Your task to perform on an android device: check data usage Image 0: 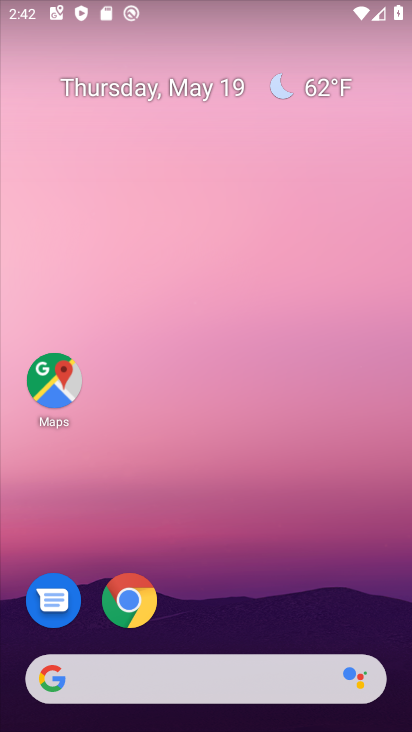
Step 0: drag from (50, 581) to (361, 211)
Your task to perform on an android device: check data usage Image 1: 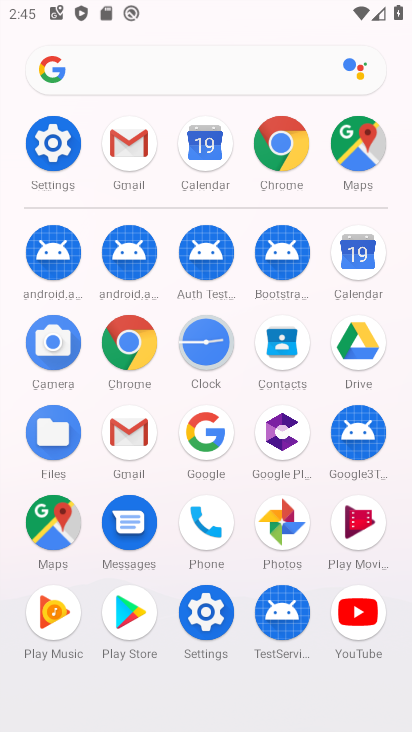
Step 1: click (45, 143)
Your task to perform on an android device: check data usage Image 2: 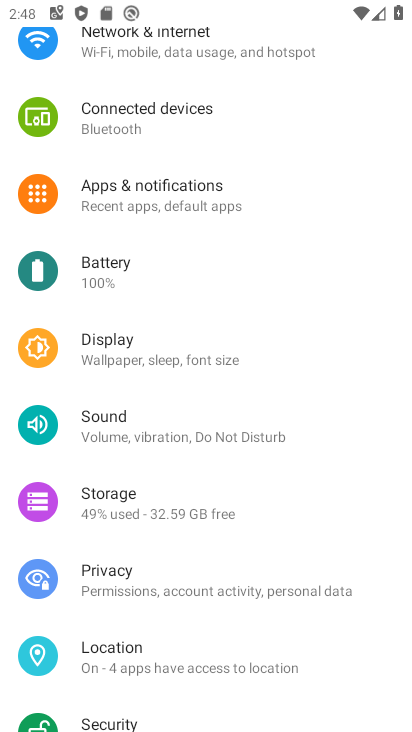
Step 2: drag from (224, 88) to (225, 375)
Your task to perform on an android device: check data usage Image 3: 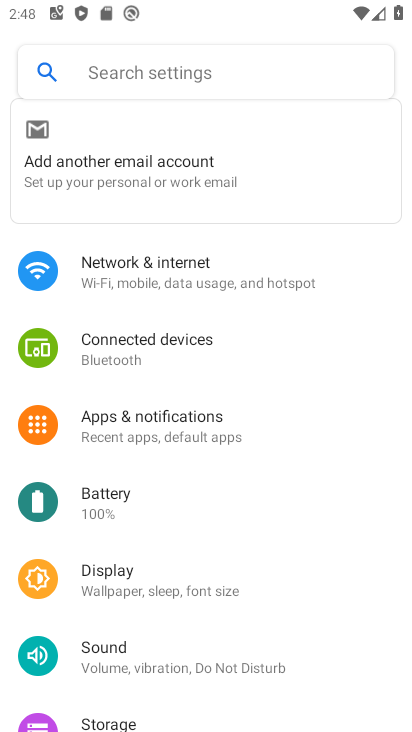
Step 3: click (166, 276)
Your task to perform on an android device: check data usage Image 4: 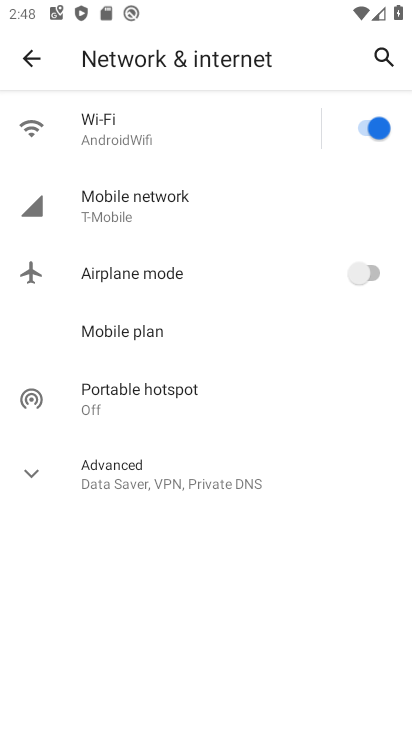
Step 4: click (133, 202)
Your task to perform on an android device: check data usage Image 5: 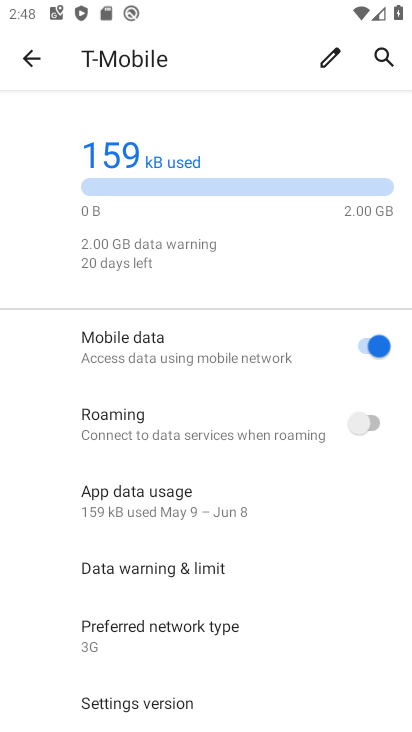
Step 5: task complete